Your task to perform on an android device: change the clock style Image 0: 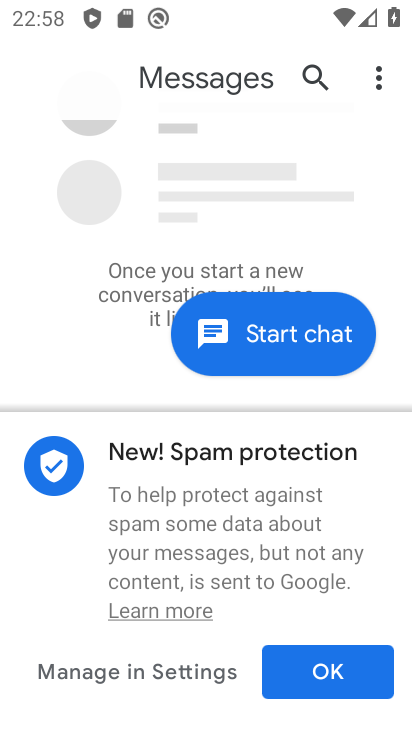
Step 0: press home button
Your task to perform on an android device: change the clock style Image 1: 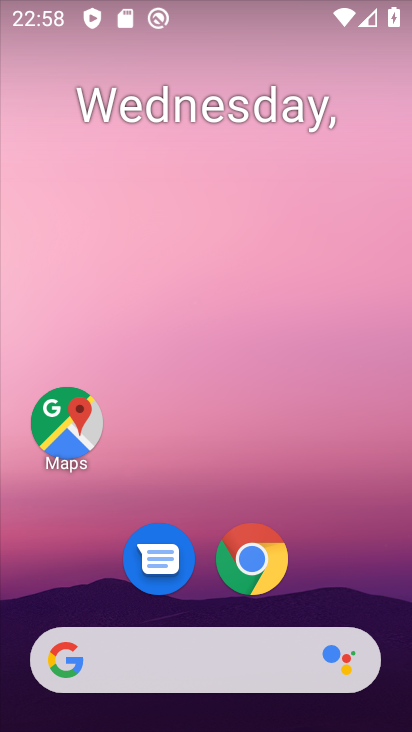
Step 1: drag from (196, 606) to (234, 250)
Your task to perform on an android device: change the clock style Image 2: 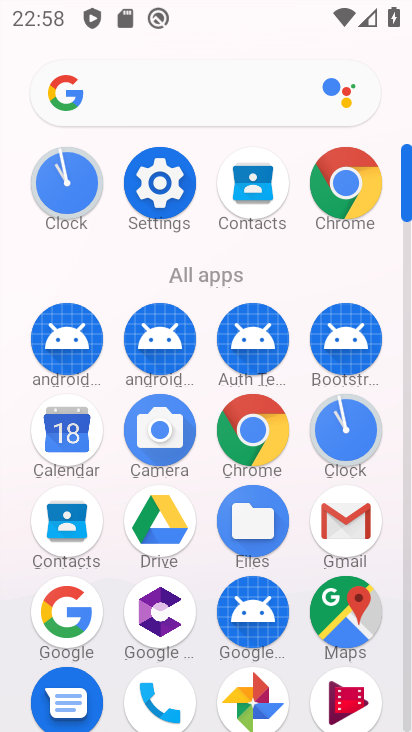
Step 2: click (347, 432)
Your task to perform on an android device: change the clock style Image 3: 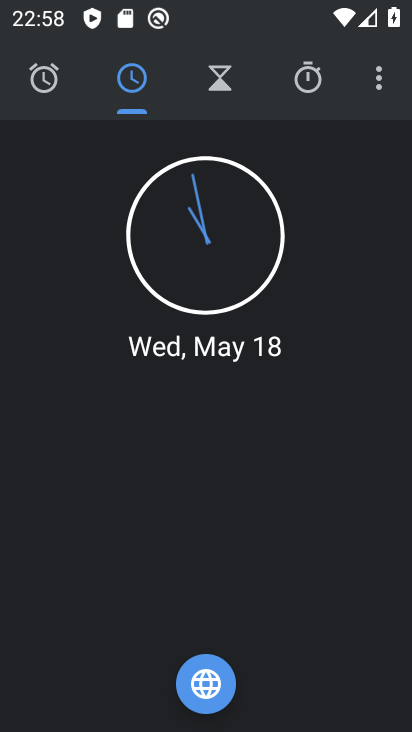
Step 3: click (381, 71)
Your task to perform on an android device: change the clock style Image 4: 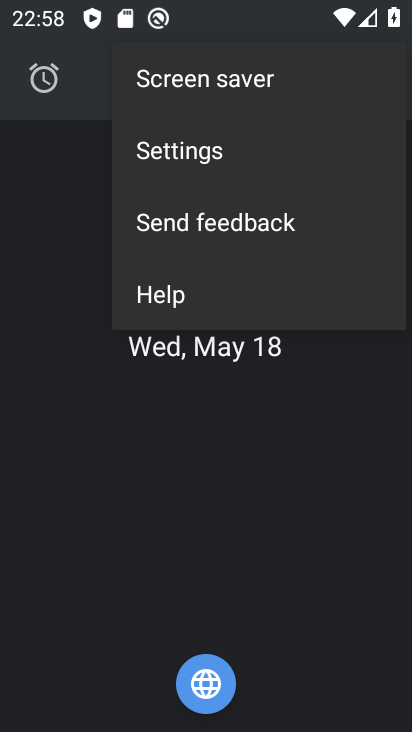
Step 4: click (237, 150)
Your task to perform on an android device: change the clock style Image 5: 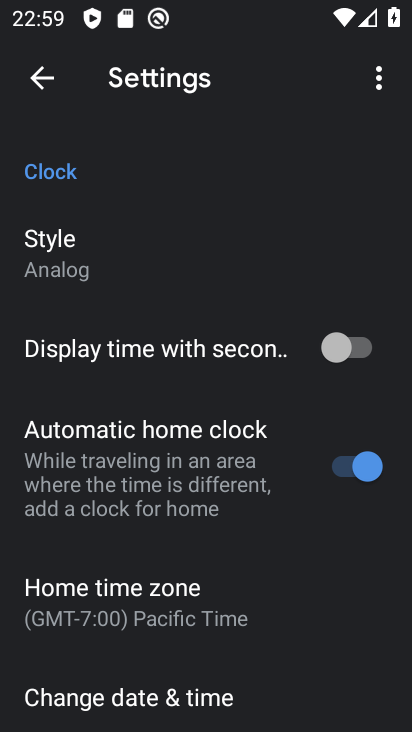
Step 5: click (91, 251)
Your task to perform on an android device: change the clock style Image 6: 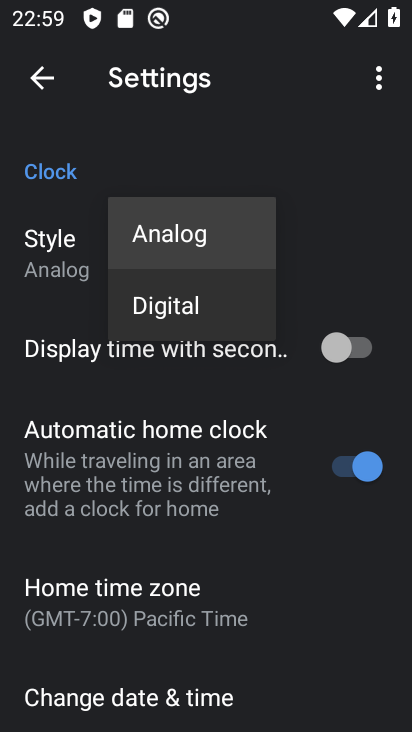
Step 6: click (154, 317)
Your task to perform on an android device: change the clock style Image 7: 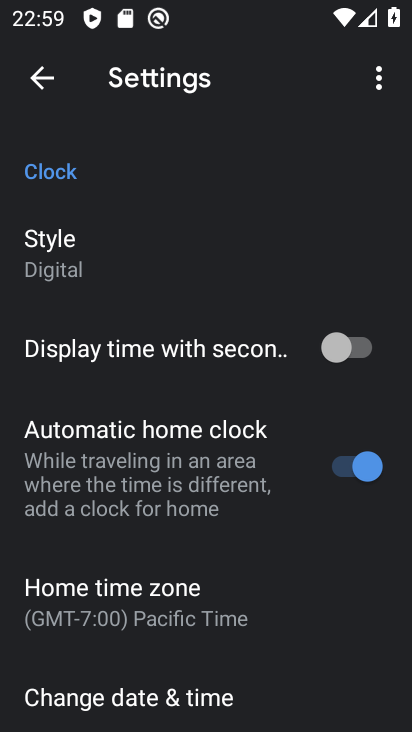
Step 7: task complete